Your task to perform on an android device: uninstall "Google Keep" Image 0: 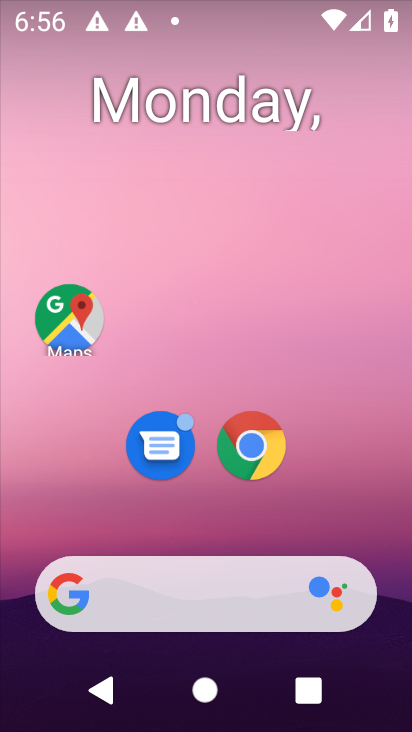
Step 0: drag from (400, 614) to (255, 114)
Your task to perform on an android device: uninstall "Google Keep" Image 1: 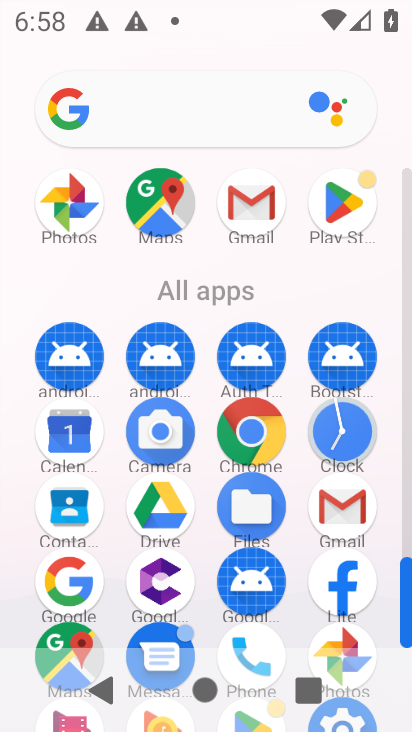
Step 1: click (356, 203)
Your task to perform on an android device: uninstall "Google Keep" Image 2: 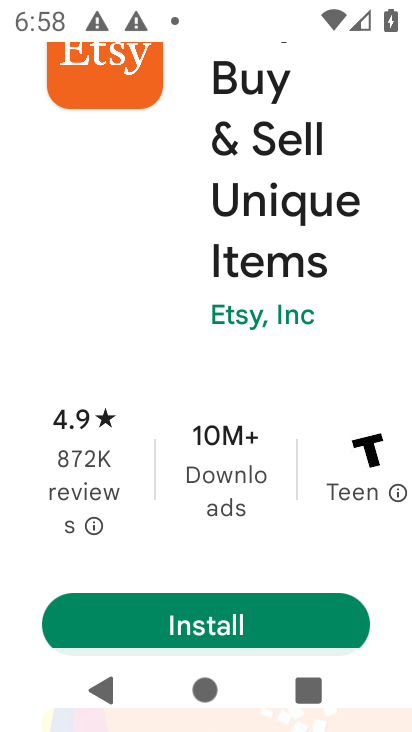
Step 2: press back button
Your task to perform on an android device: uninstall "Google Keep" Image 3: 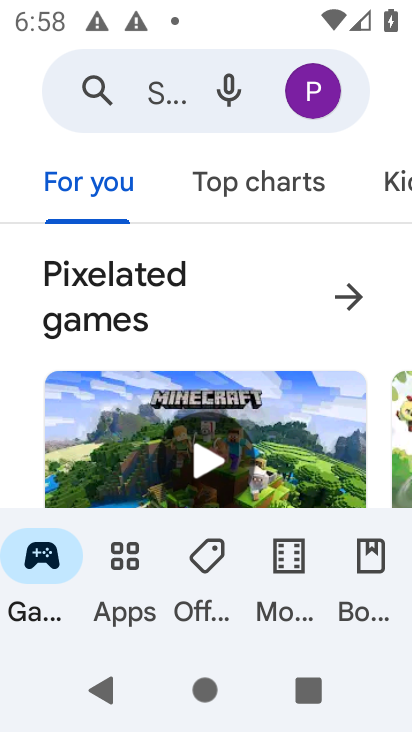
Step 3: click (136, 82)
Your task to perform on an android device: uninstall "Google Keep" Image 4: 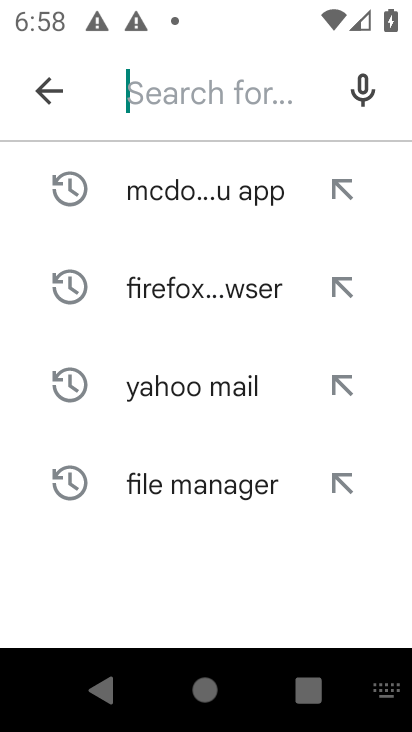
Step 4: type "Google Keep"
Your task to perform on an android device: uninstall "Google Keep" Image 5: 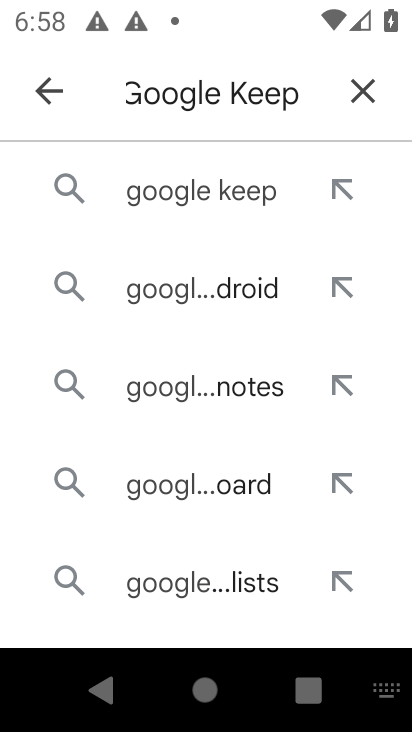
Step 5: click (170, 196)
Your task to perform on an android device: uninstall "Google Keep" Image 6: 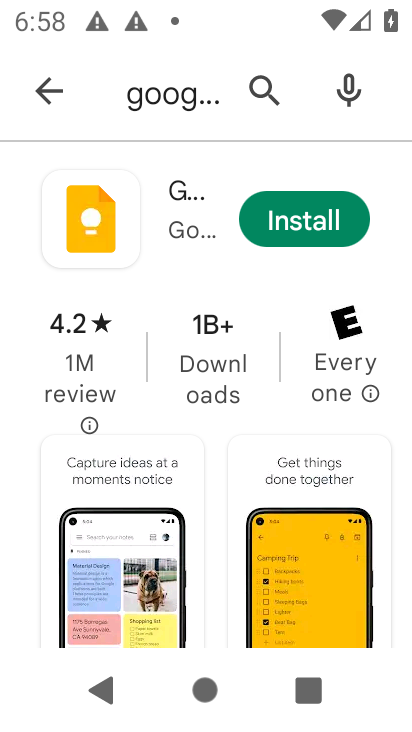
Step 6: task complete